Your task to perform on an android device: toggle translation in the chrome app Image 0: 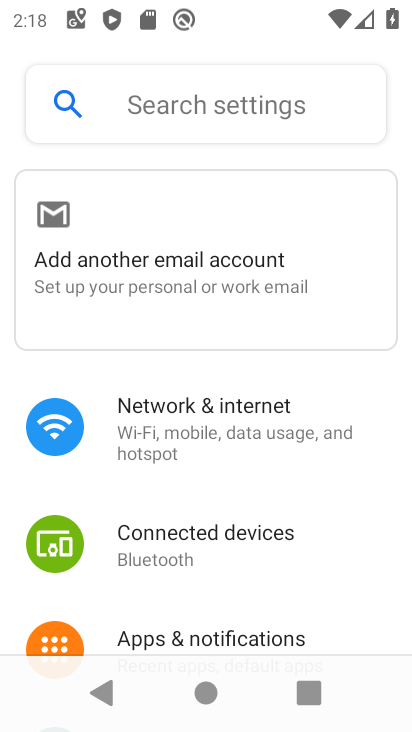
Step 0: press back button
Your task to perform on an android device: toggle translation in the chrome app Image 1: 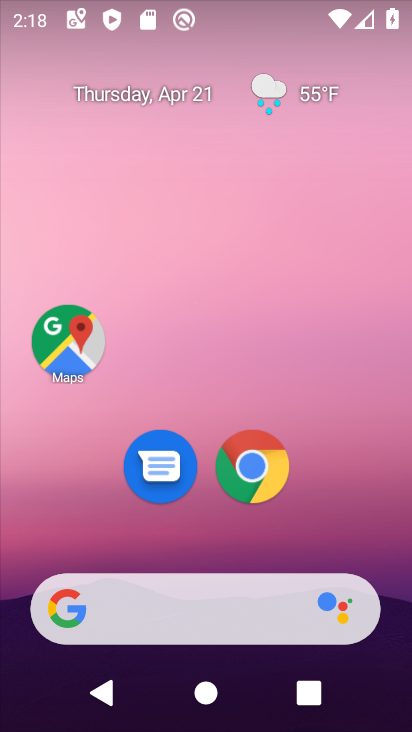
Step 1: drag from (307, 561) to (303, 115)
Your task to perform on an android device: toggle translation in the chrome app Image 2: 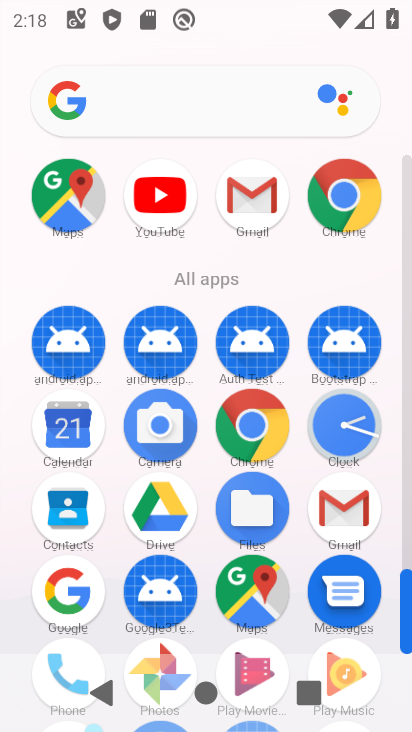
Step 2: click (270, 436)
Your task to perform on an android device: toggle translation in the chrome app Image 3: 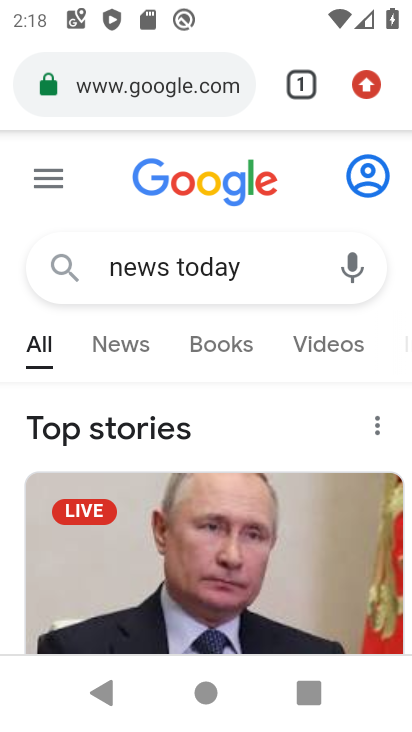
Step 3: drag from (369, 89) to (222, 529)
Your task to perform on an android device: toggle translation in the chrome app Image 4: 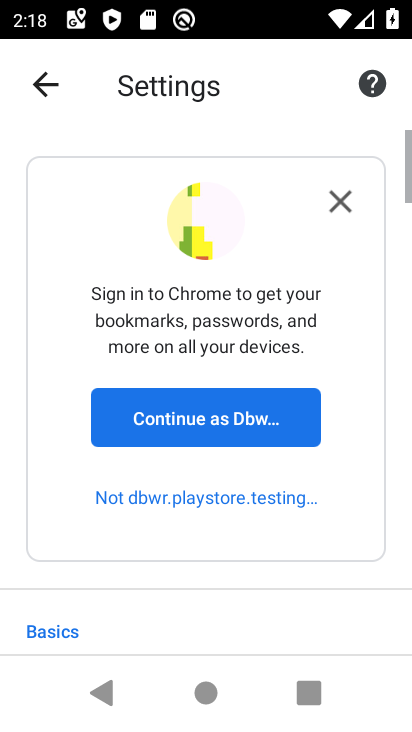
Step 4: drag from (209, 611) to (218, 205)
Your task to perform on an android device: toggle translation in the chrome app Image 5: 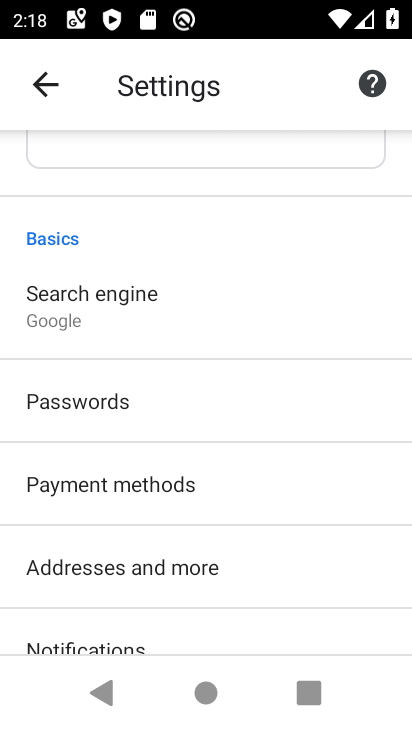
Step 5: drag from (229, 587) to (232, 154)
Your task to perform on an android device: toggle translation in the chrome app Image 6: 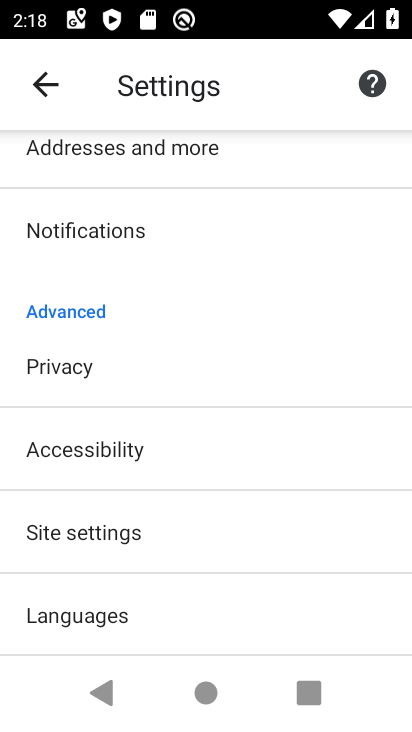
Step 6: click (89, 613)
Your task to perform on an android device: toggle translation in the chrome app Image 7: 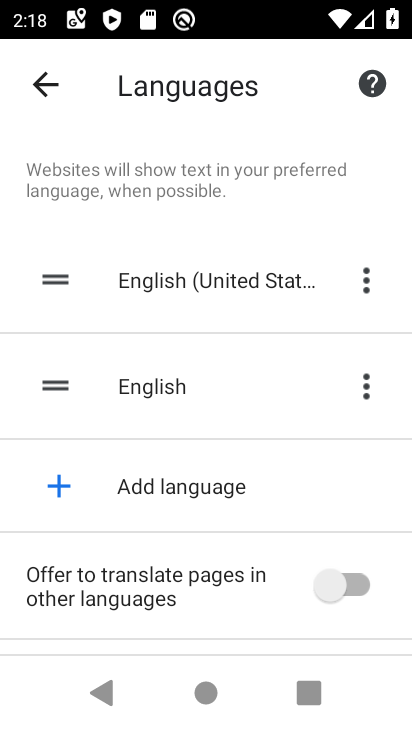
Step 7: click (351, 583)
Your task to perform on an android device: toggle translation in the chrome app Image 8: 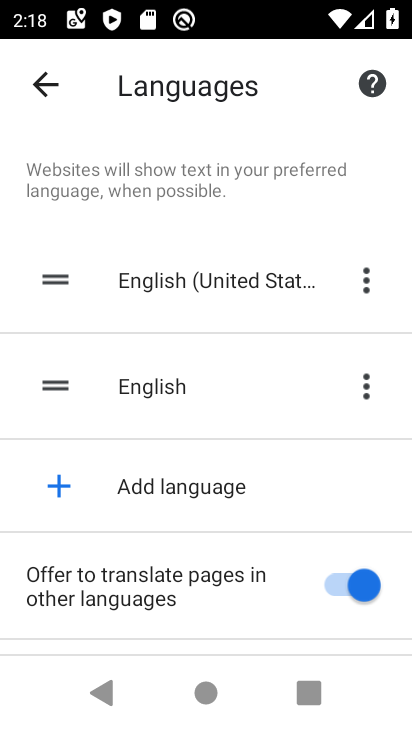
Step 8: task complete